Your task to perform on an android device: Open calendar and show me the second week of next month Image 0: 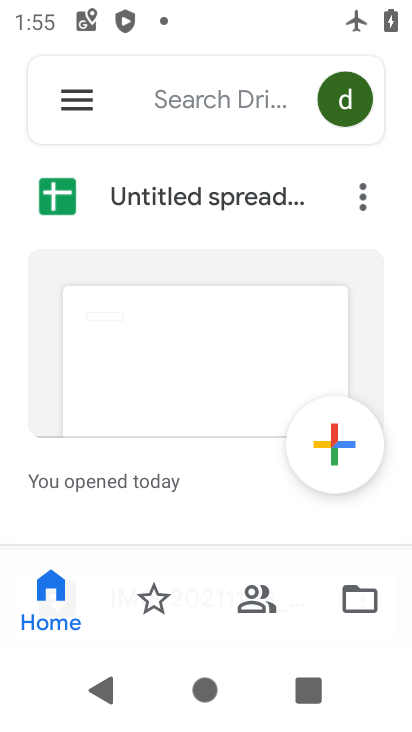
Step 0: press home button
Your task to perform on an android device: Open calendar and show me the second week of next month Image 1: 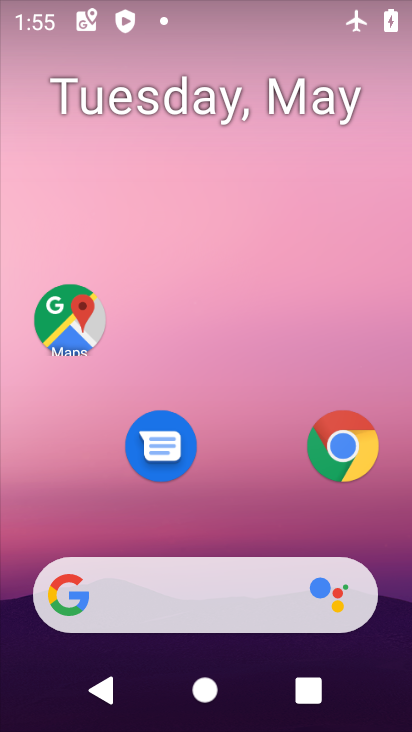
Step 1: drag from (208, 560) to (205, 23)
Your task to perform on an android device: Open calendar and show me the second week of next month Image 2: 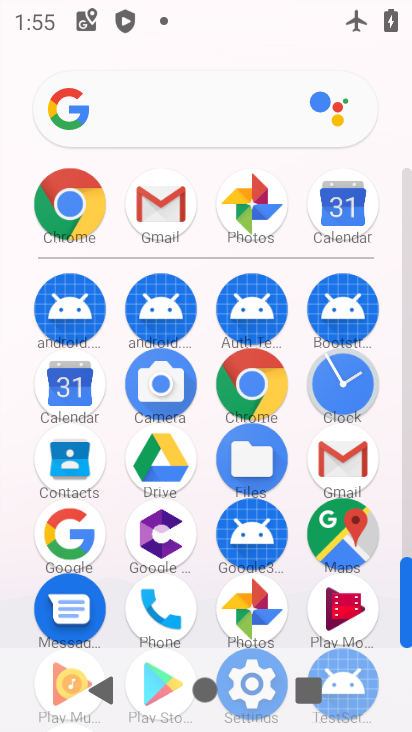
Step 2: click (341, 216)
Your task to perform on an android device: Open calendar and show me the second week of next month Image 3: 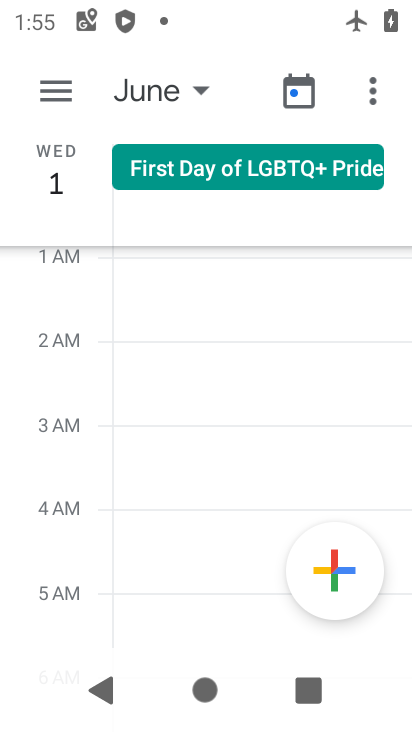
Step 3: click (57, 90)
Your task to perform on an android device: Open calendar and show me the second week of next month Image 4: 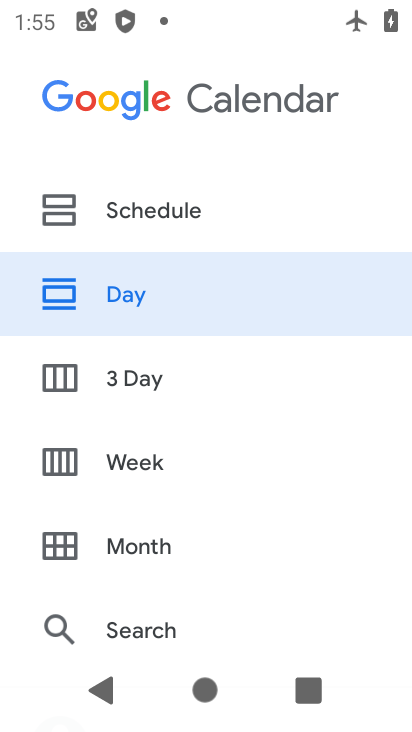
Step 4: click (165, 469)
Your task to perform on an android device: Open calendar and show me the second week of next month Image 5: 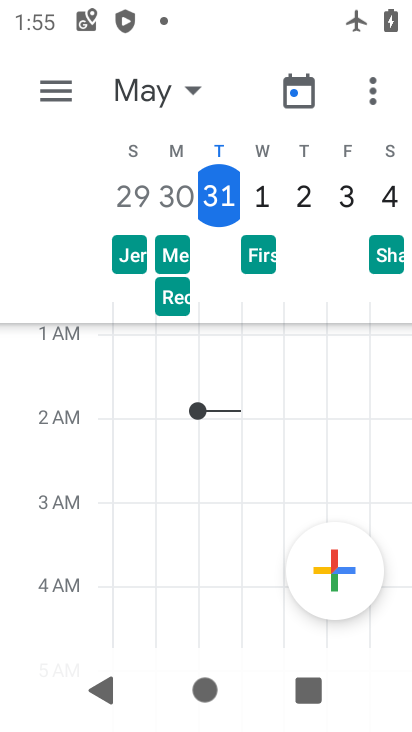
Step 5: task complete